Your task to perform on an android device: What's on my calendar tomorrow? Image 0: 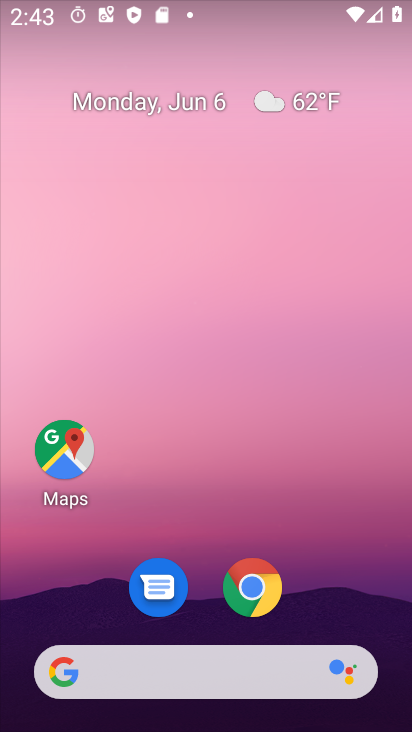
Step 0: drag from (344, 571) to (253, 79)
Your task to perform on an android device: What's on my calendar tomorrow? Image 1: 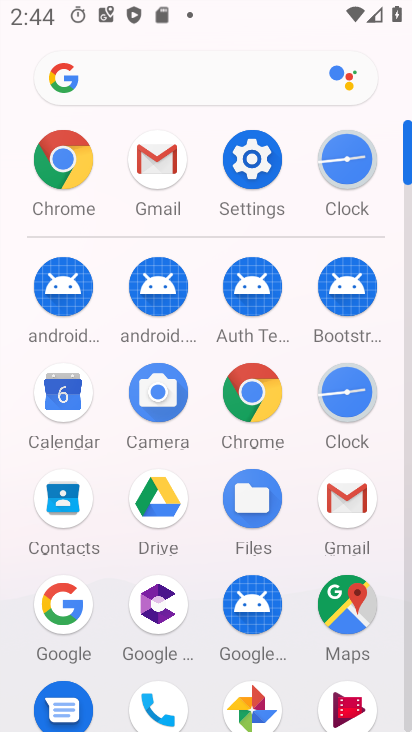
Step 1: click (60, 395)
Your task to perform on an android device: What's on my calendar tomorrow? Image 2: 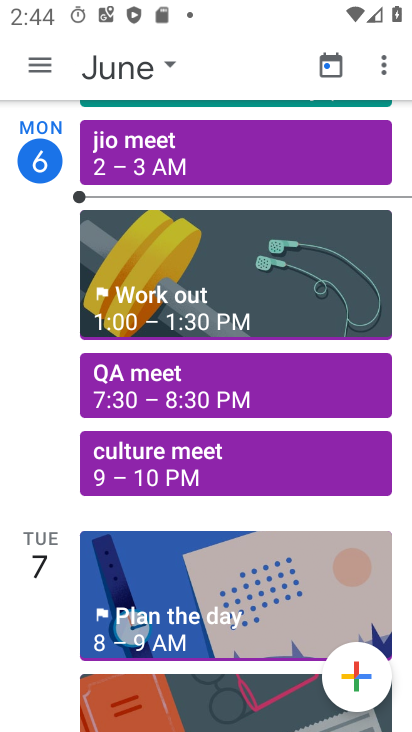
Step 2: click (136, 61)
Your task to perform on an android device: What's on my calendar tomorrow? Image 3: 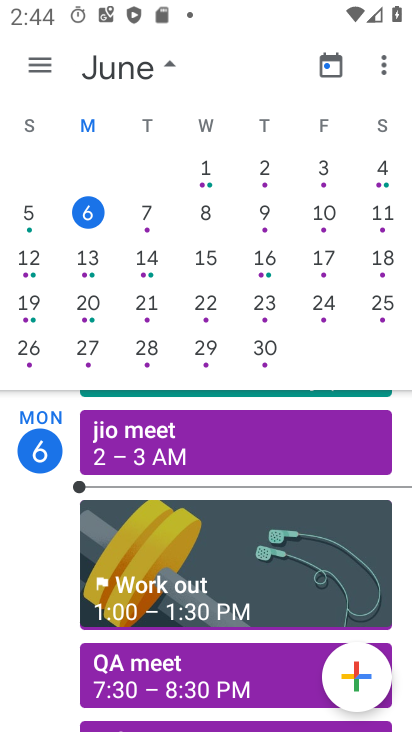
Step 3: click (323, 66)
Your task to perform on an android device: What's on my calendar tomorrow? Image 4: 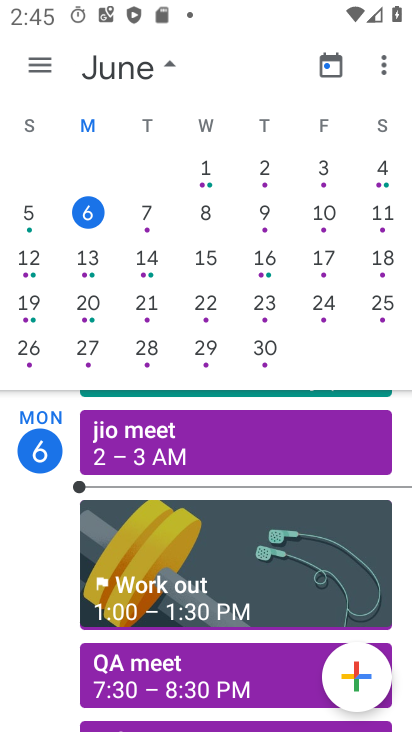
Step 4: click (143, 207)
Your task to perform on an android device: What's on my calendar tomorrow? Image 5: 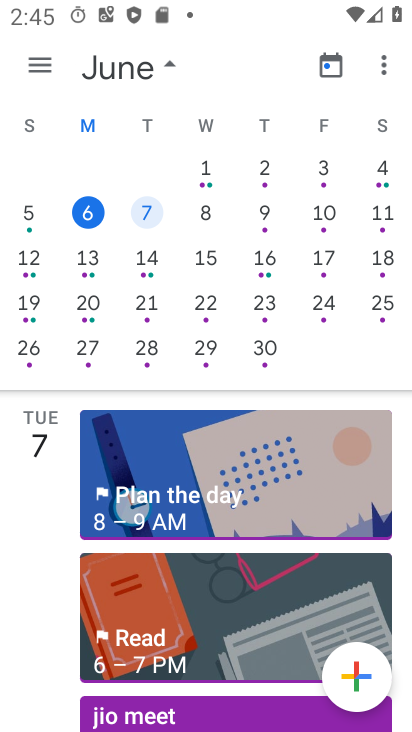
Step 5: drag from (198, 557) to (203, 491)
Your task to perform on an android device: What's on my calendar tomorrow? Image 6: 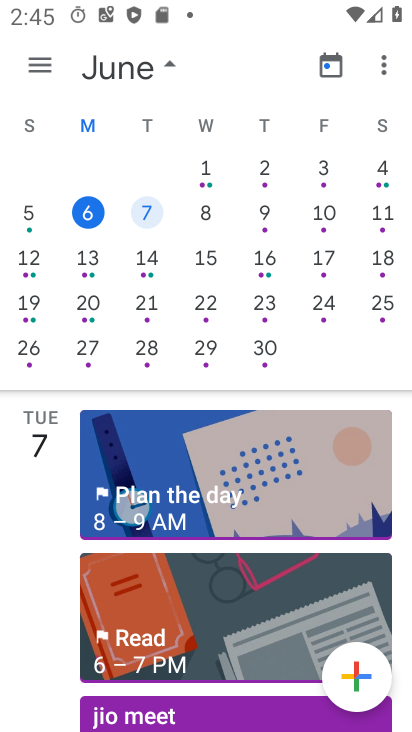
Step 6: click (34, 64)
Your task to perform on an android device: What's on my calendar tomorrow? Image 7: 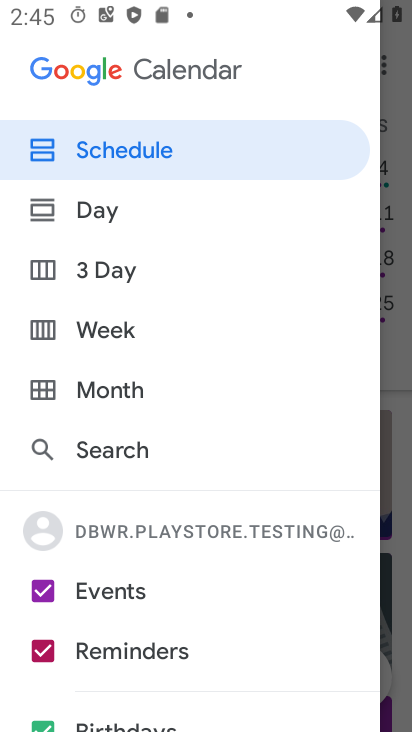
Step 7: click (126, 210)
Your task to perform on an android device: What's on my calendar tomorrow? Image 8: 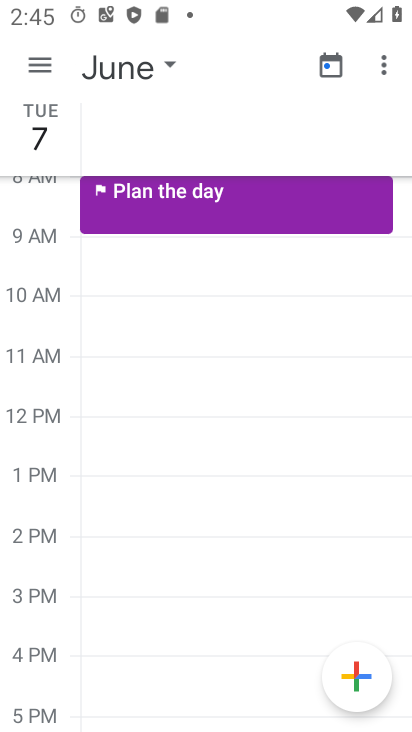
Step 8: task complete